Your task to perform on an android device: Go to settings Image 0: 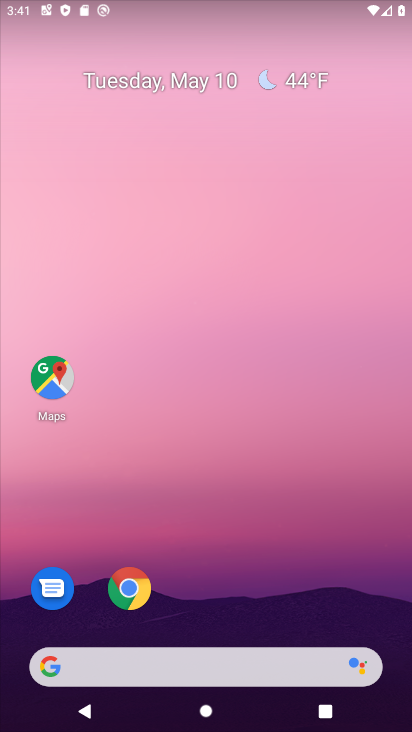
Step 0: press home button
Your task to perform on an android device: Go to settings Image 1: 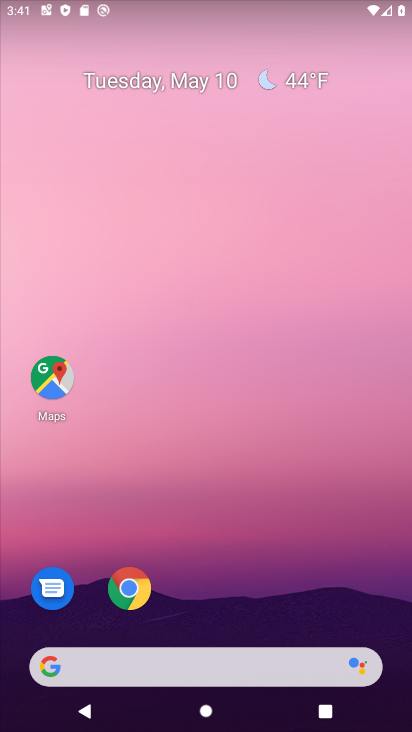
Step 1: drag from (344, 7) to (323, 576)
Your task to perform on an android device: Go to settings Image 2: 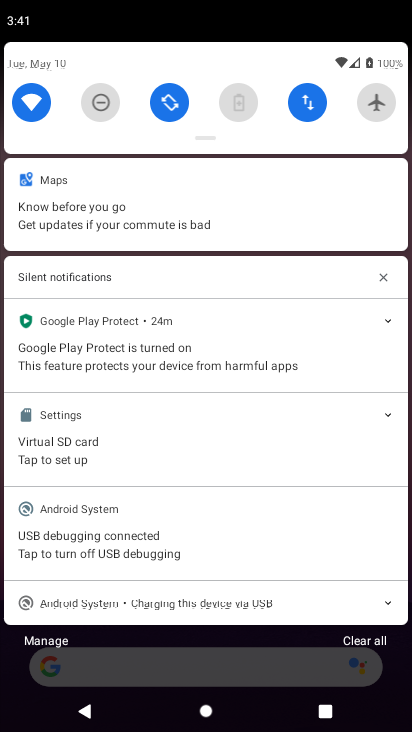
Step 2: drag from (324, 135) to (371, 634)
Your task to perform on an android device: Go to settings Image 3: 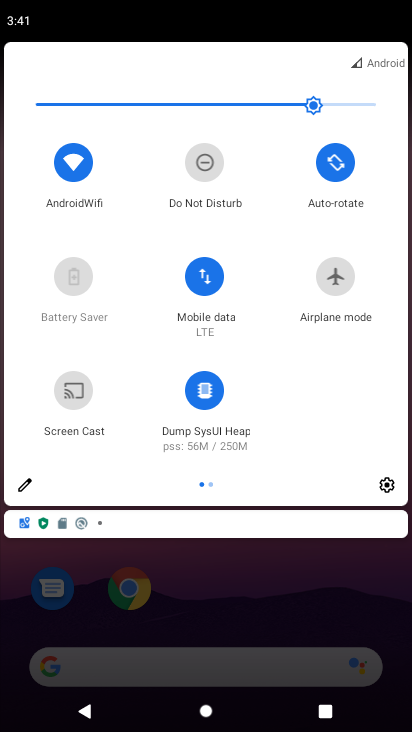
Step 3: click (393, 483)
Your task to perform on an android device: Go to settings Image 4: 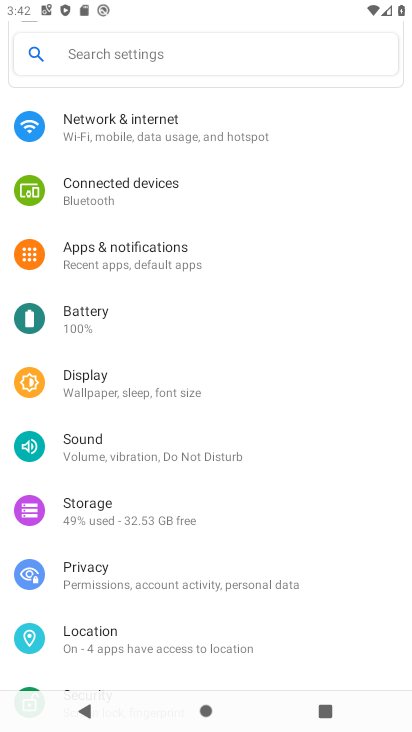
Step 4: task complete